Your task to perform on an android device: Open Google Maps and go to "Timeline" Image 0: 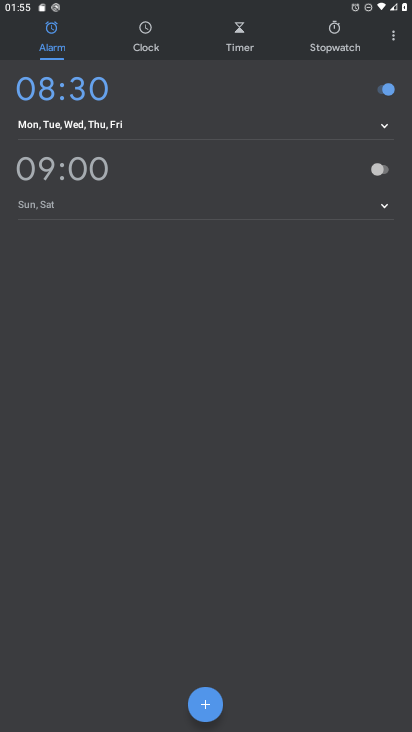
Step 0: press home button
Your task to perform on an android device: Open Google Maps and go to "Timeline" Image 1: 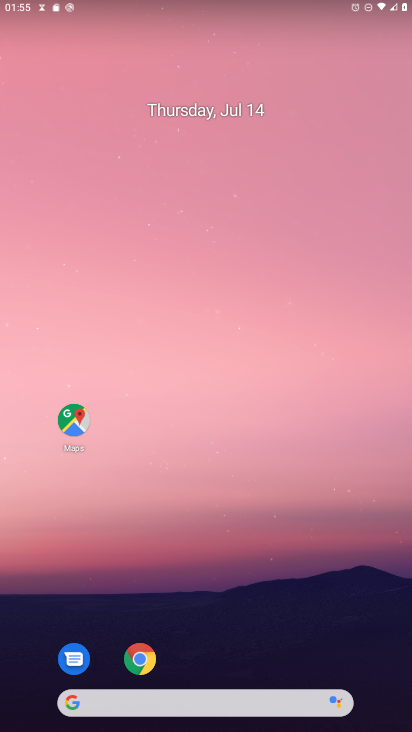
Step 1: click (84, 420)
Your task to perform on an android device: Open Google Maps and go to "Timeline" Image 2: 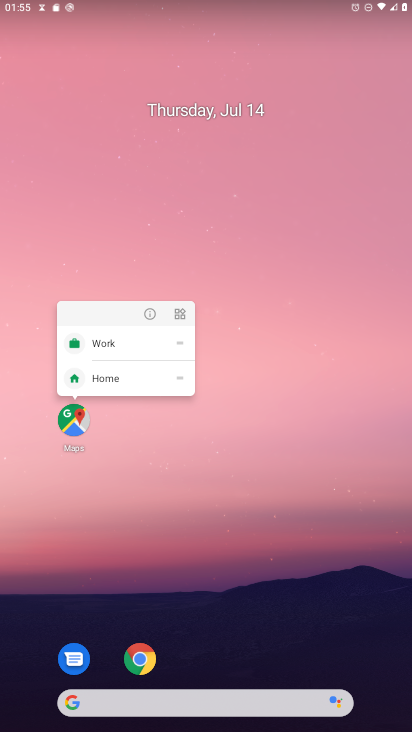
Step 2: click (79, 421)
Your task to perform on an android device: Open Google Maps and go to "Timeline" Image 3: 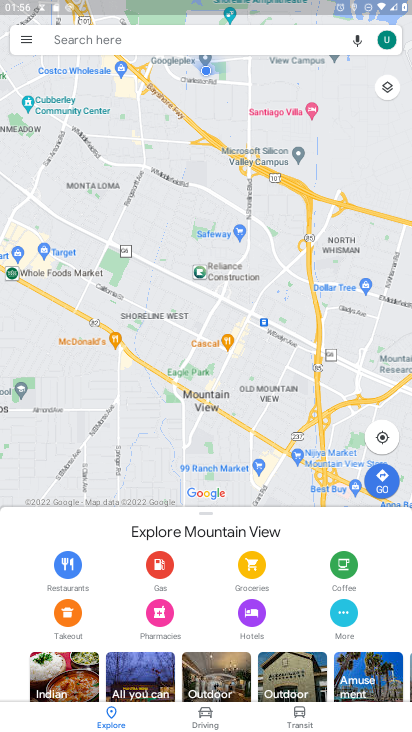
Step 3: click (32, 42)
Your task to perform on an android device: Open Google Maps and go to "Timeline" Image 4: 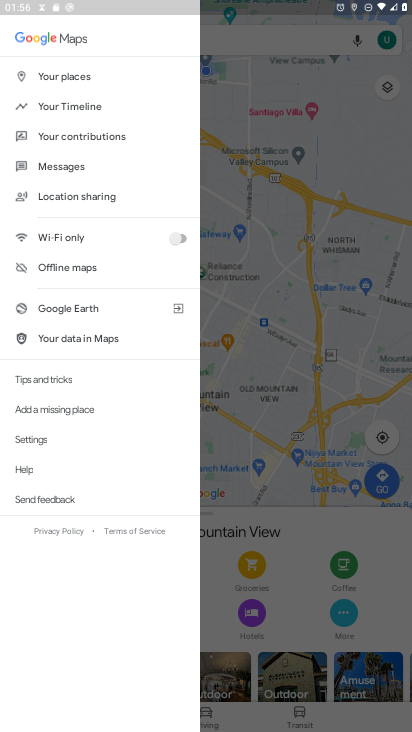
Step 4: click (78, 99)
Your task to perform on an android device: Open Google Maps and go to "Timeline" Image 5: 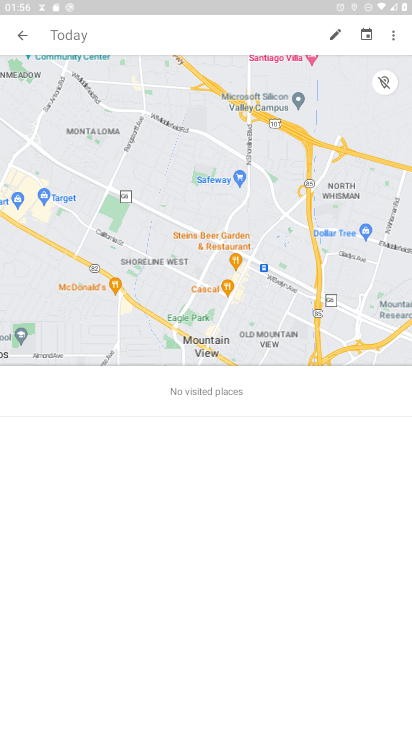
Step 5: task complete